Your task to perform on an android device: How big is the sun? Image 0: 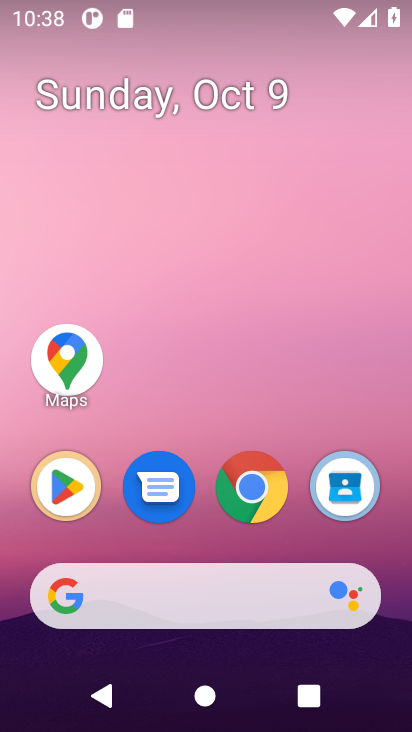
Step 0: click (242, 485)
Your task to perform on an android device: How big is the sun? Image 1: 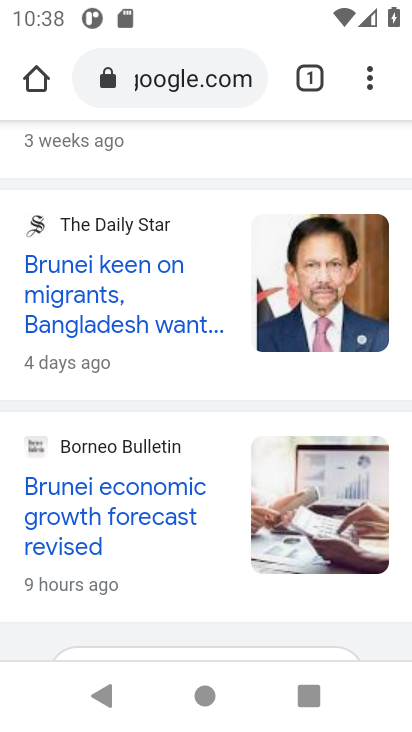
Step 1: click (177, 92)
Your task to perform on an android device: How big is the sun? Image 2: 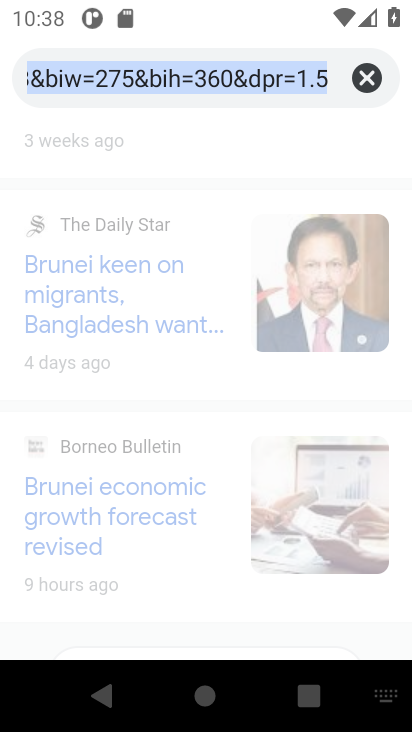
Step 2: task complete